Your task to perform on an android device: set the stopwatch Image 0: 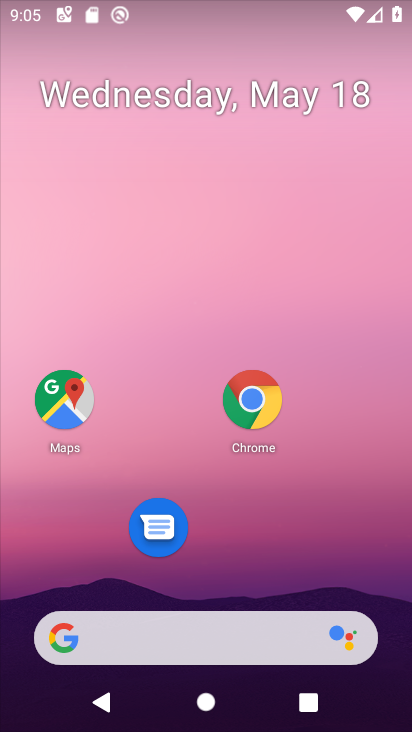
Step 0: drag from (240, 530) to (272, 25)
Your task to perform on an android device: set the stopwatch Image 1: 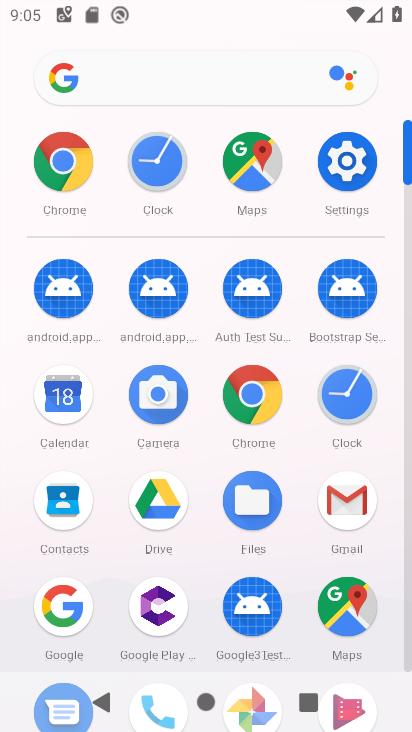
Step 1: click (340, 412)
Your task to perform on an android device: set the stopwatch Image 2: 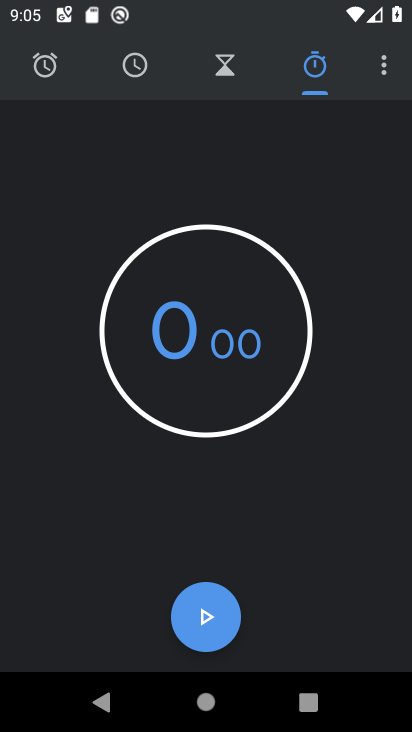
Step 2: click (217, 612)
Your task to perform on an android device: set the stopwatch Image 3: 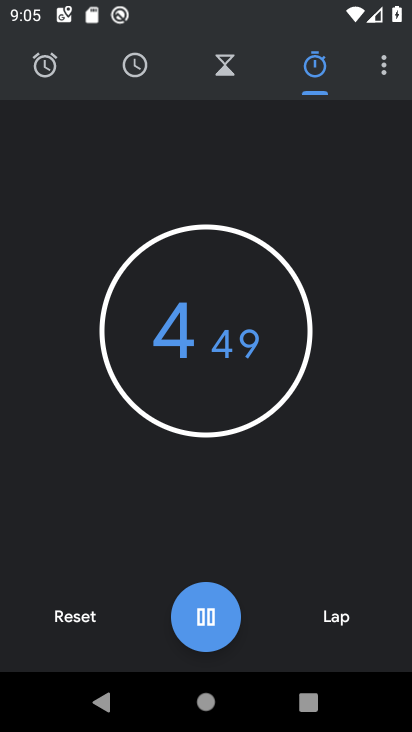
Step 3: click (205, 620)
Your task to perform on an android device: set the stopwatch Image 4: 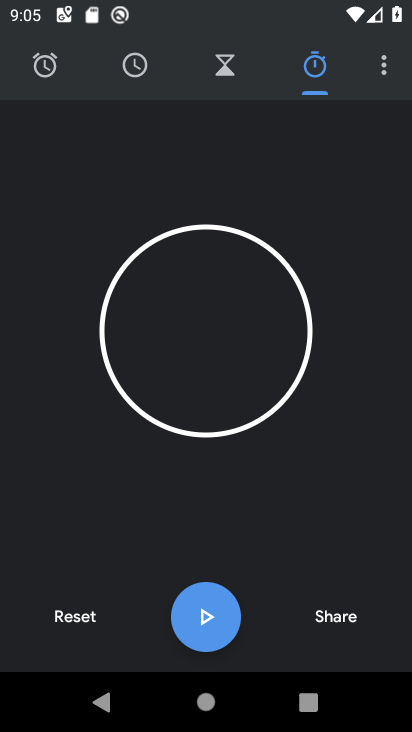
Step 4: task complete